Your task to perform on an android device: toggle notifications settings in the gmail app Image 0: 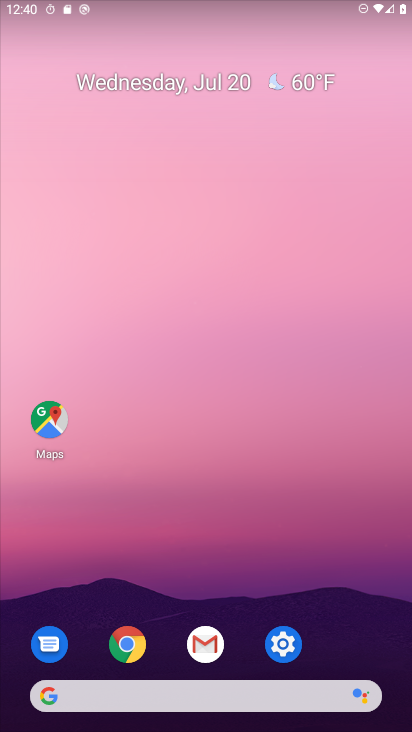
Step 0: click (201, 626)
Your task to perform on an android device: toggle notifications settings in the gmail app Image 1: 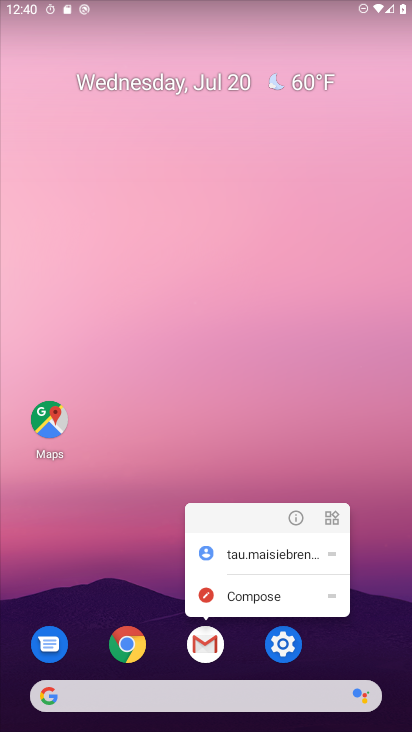
Step 1: click (207, 642)
Your task to perform on an android device: toggle notifications settings in the gmail app Image 2: 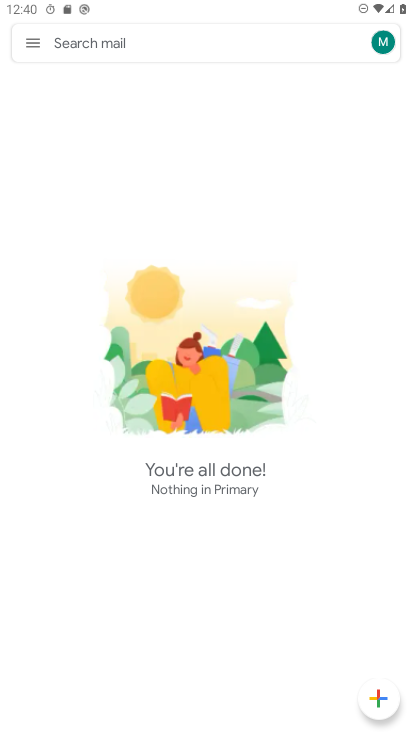
Step 2: click (36, 48)
Your task to perform on an android device: toggle notifications settings in the gmail app Image 3: 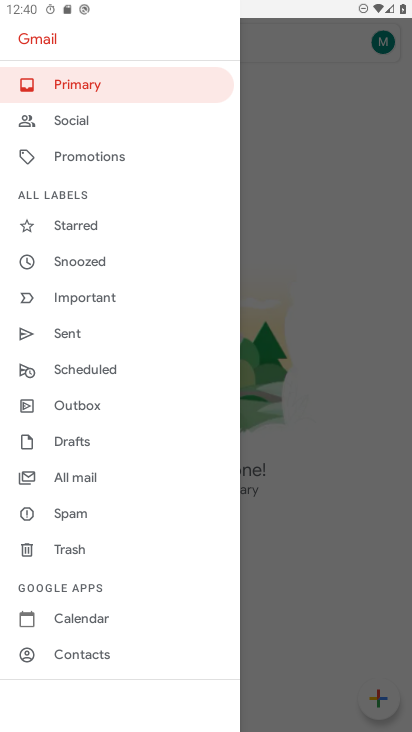
Step 3: drag from (94, 628) to (115, 526)
Your task to perform on an android device: toggle notifications settings in the gmail app Image 4: 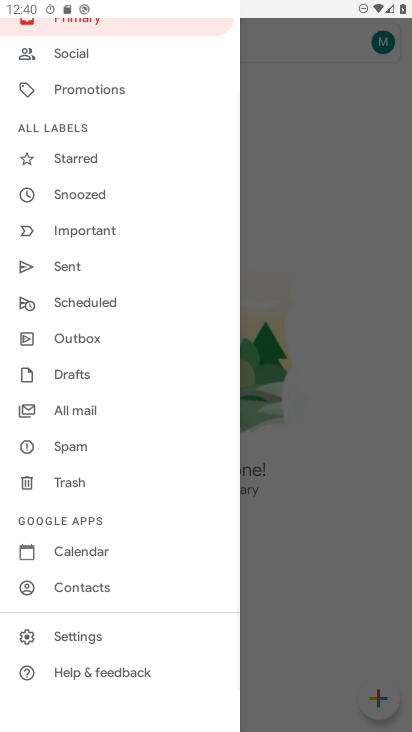
Step 4: click (57, 633)
Your task to perform on an android device: toggle notifications settings in the gmail app Image 5: 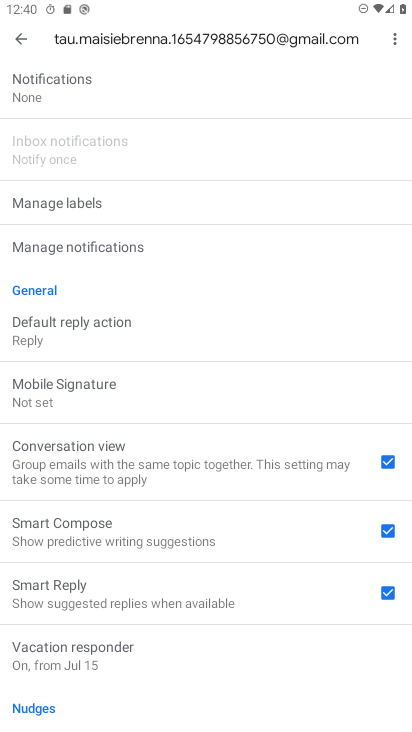
Step 5: click (57, 84)
Your task to perform on an android device: toggle notifications settings in the gmail app Image 6: 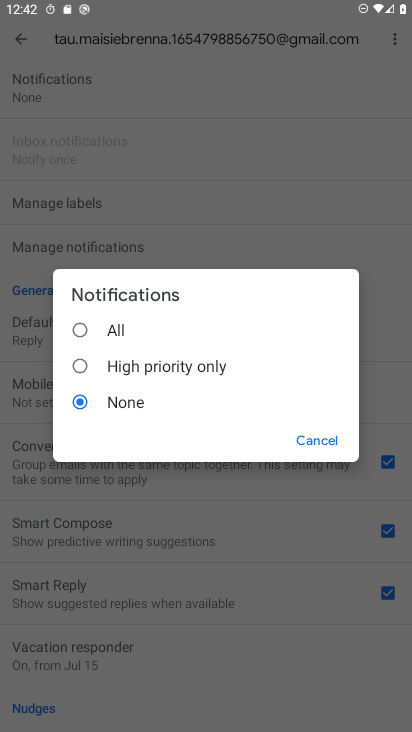
Step 6: task complete